Your task to perform on an android device: turn notification dots on Image 0: 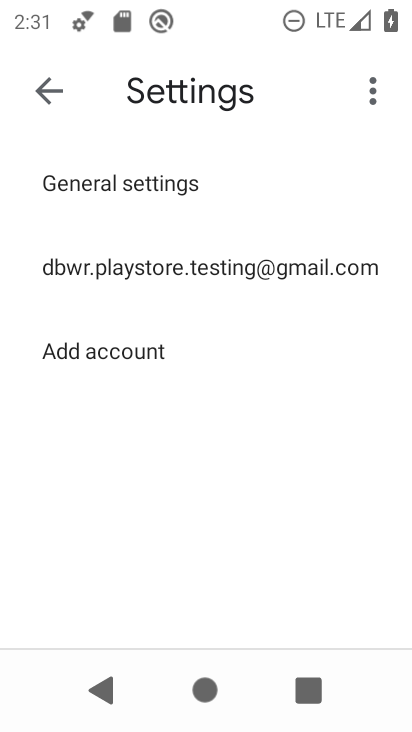
Step 0: press home button
Your task to perform on an android device: turn notification dots on Image 1: 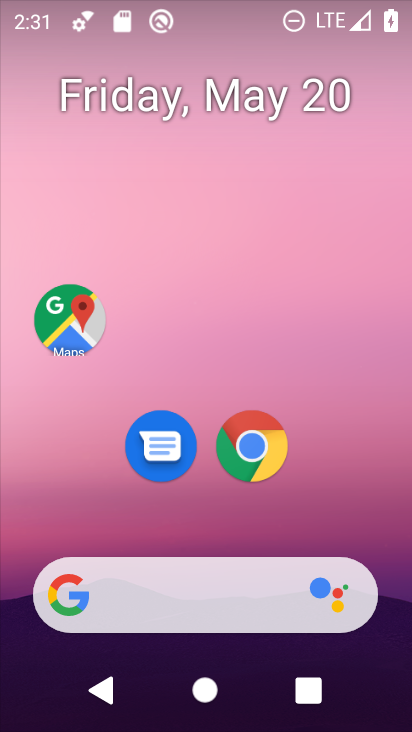
Step 1: drag from (357, 549) to (313, 10)
Your task to perform on an android device: turn notification dots on Image 2: 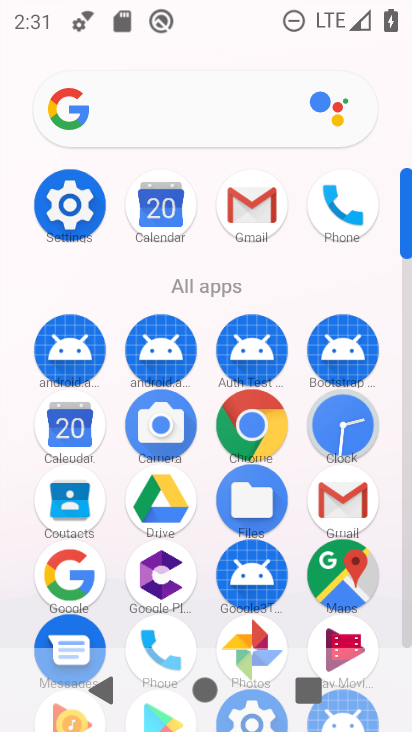
Step 2: click (71, 211)
Your task to perform on an android device: turn notification dots on Image 3: 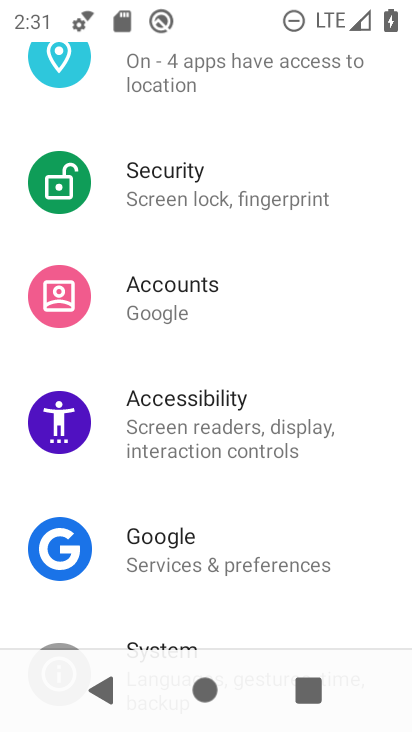
Step 3: drag from (285, 303) to (300, 531)
Your task to perform on an android device: turn notification dots on Image 4: 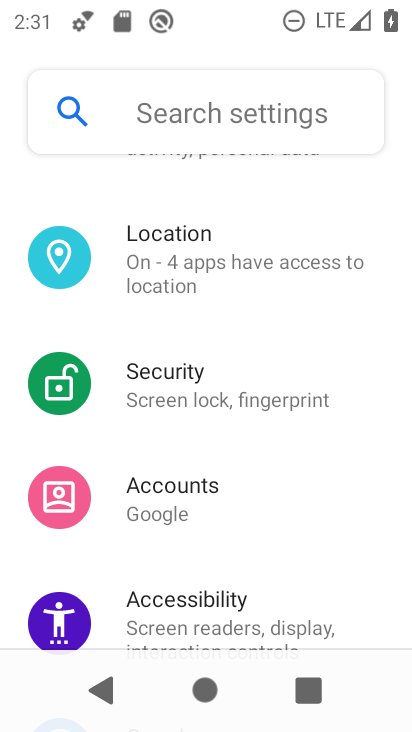
Step 4: drag from (323, 188) to (334, 462)
Your task to perform on an android device: turn notification dots on Image 5: 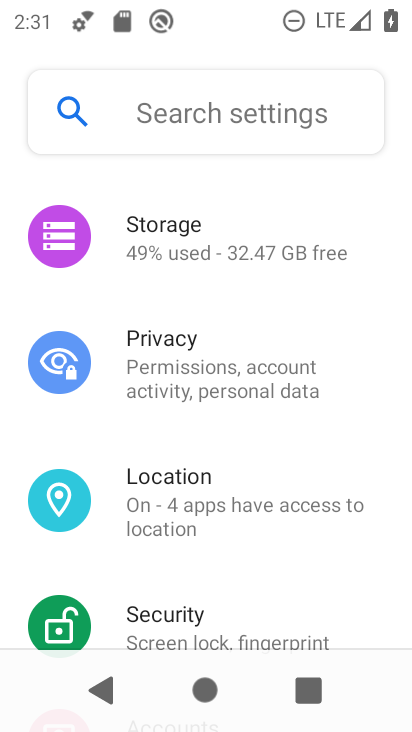
Step 5: drag from (310, 256) to (320, 474)
Your task to perform on an android device: turn notification dots on Image 6: 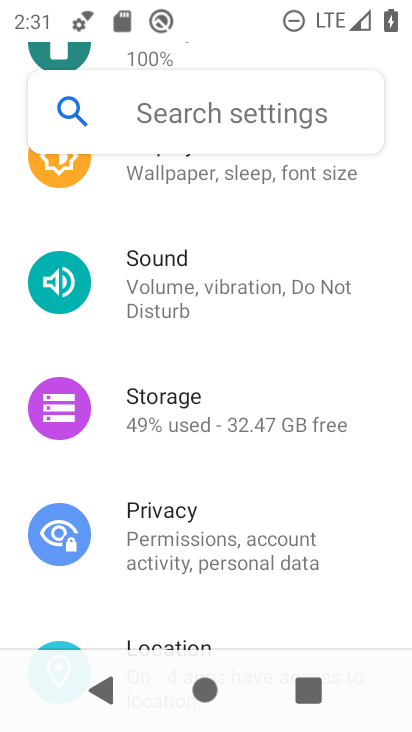
Step 6: drag from (248, 231) to (250, 532)
Your task to perform on an android device: turn notification dots on Image 7: 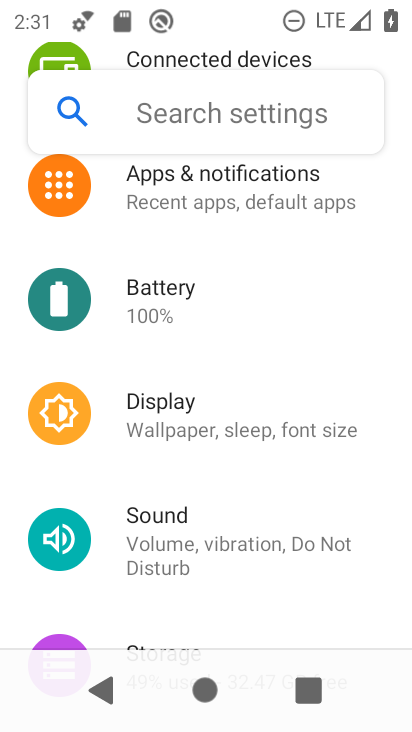
Step 7: drag from (243, 300) to (248, 497)
Your task to perform on an android device: turn notification dots on Image 8: 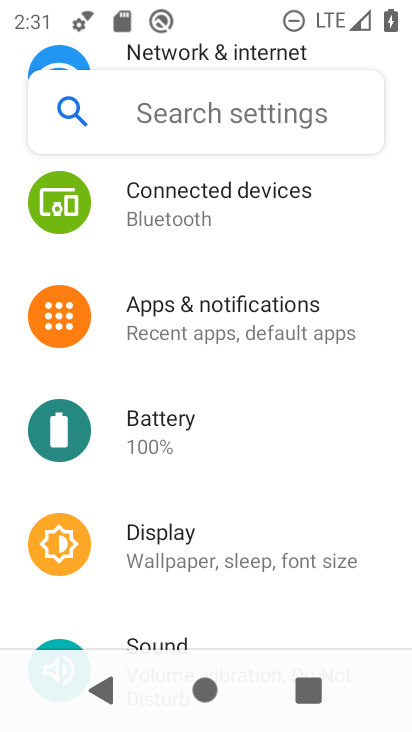
Step 8: click (195, 333)
Your task to perform on an android device: turn notification dots on Image 9: 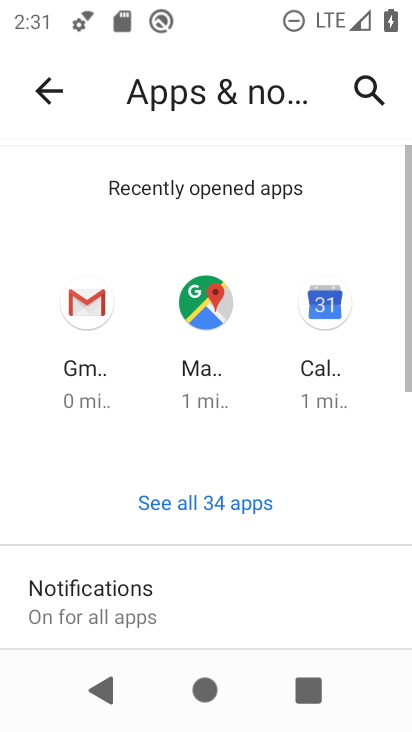
Step 9: drag from (247, 543) to (226, 185)
Your task to perform on an android device: turn notification dots on Image 10: 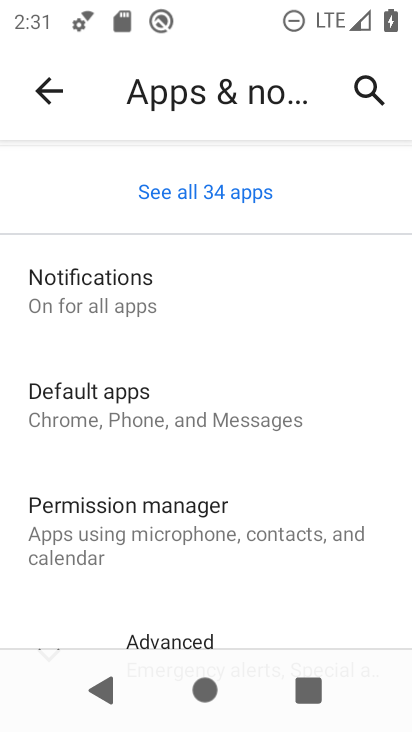
Step 10: click (77, 281)
Your task to perform on an android device: turn notification dots on Image 11: 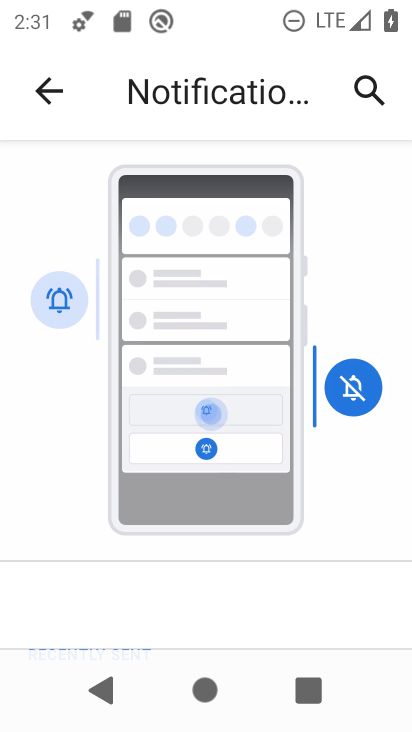
Step 11: drag from (177, 569) to (152, 165)
Your task to perform on an android device: turn notification dots on Image 12: 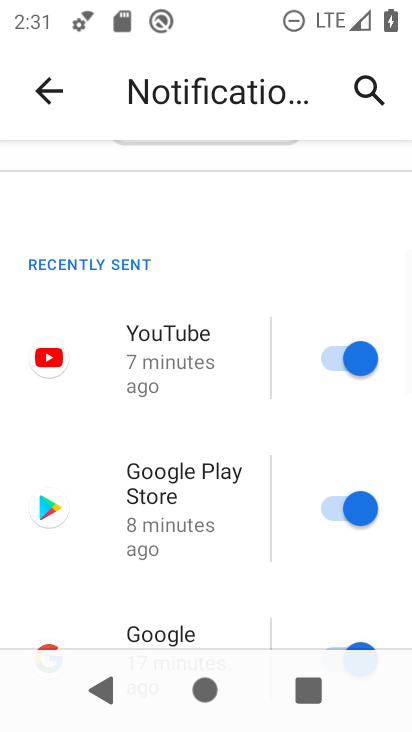
Step 12: drag from (154, 515) to (151, 175)
Your task to perform on an android device: turn notification dots on Image 13: 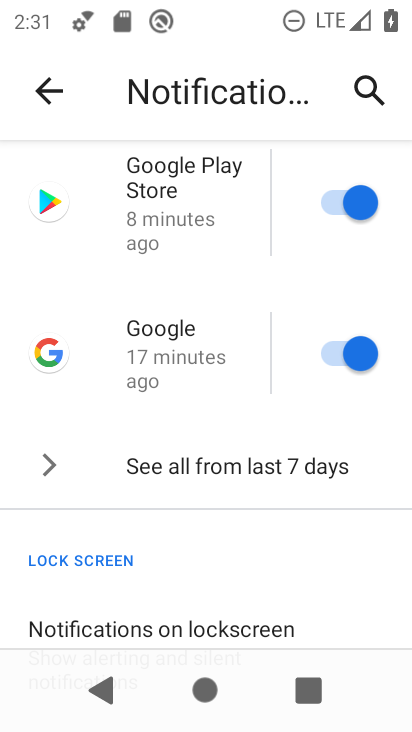
Step 13: drag from (151, 497) to (142, 153)
Your task to perform on an android device: turn notification dots on Image 14: 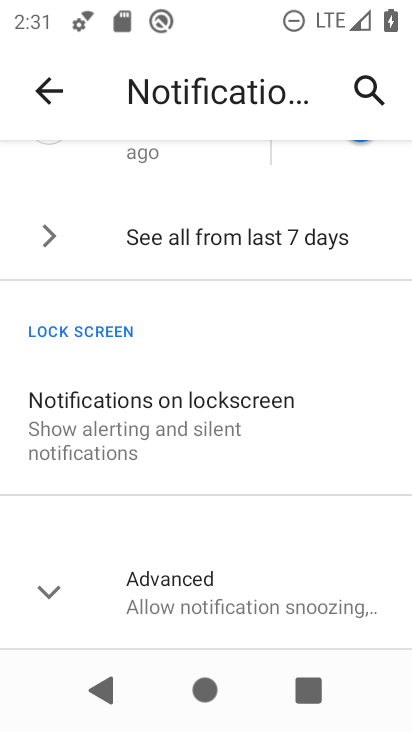
Step 14: click (45, 601)
Your task to perform on an android device: turn notification dots on Image 15: 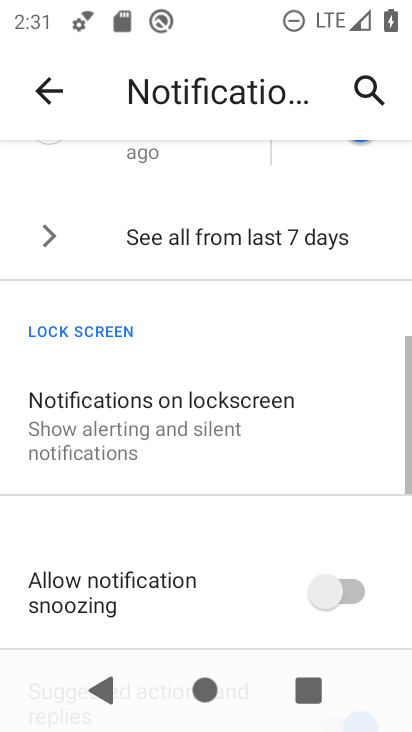
Step 15: task complete